Your task to perform on an android device: check android version Image 0: 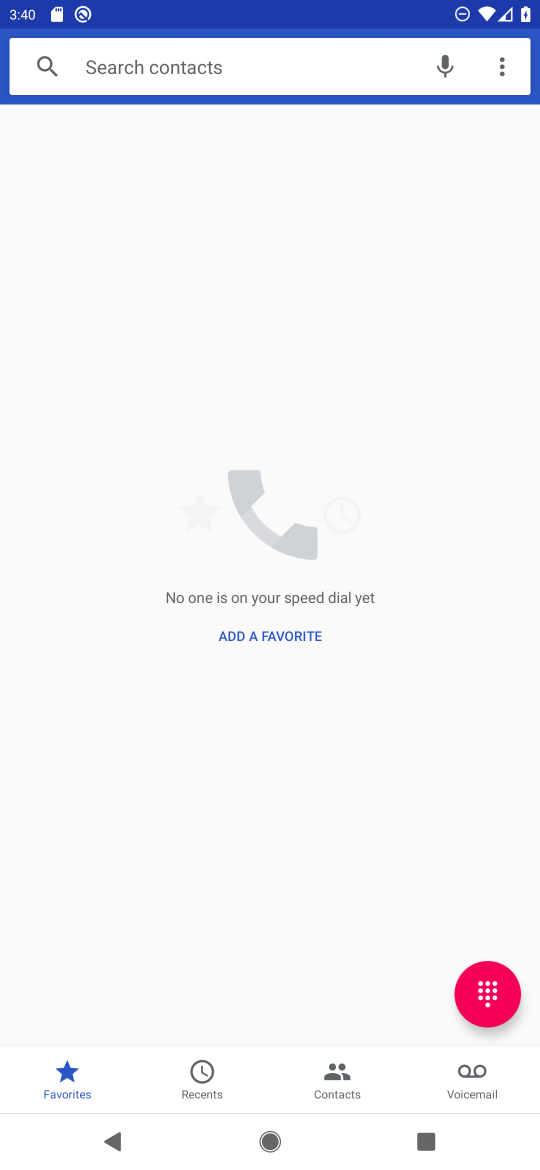
Step 0: press home button
Your task to perform on an android device: check android version Image 1: 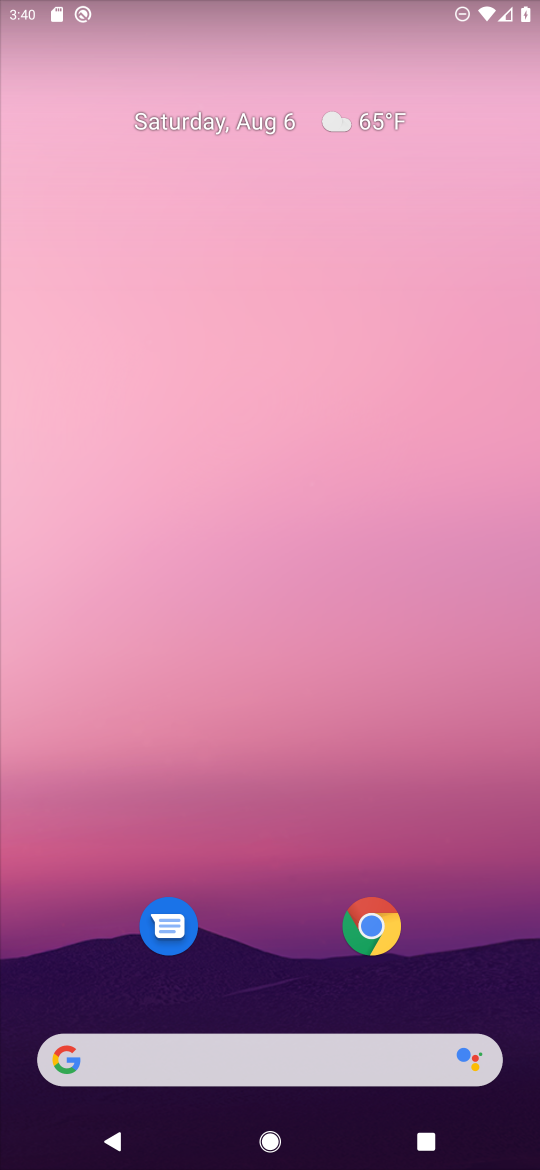
Step 1: drag from (267, 916) to (267, 271)
Your task to perform on an android device: check android version Image 2: 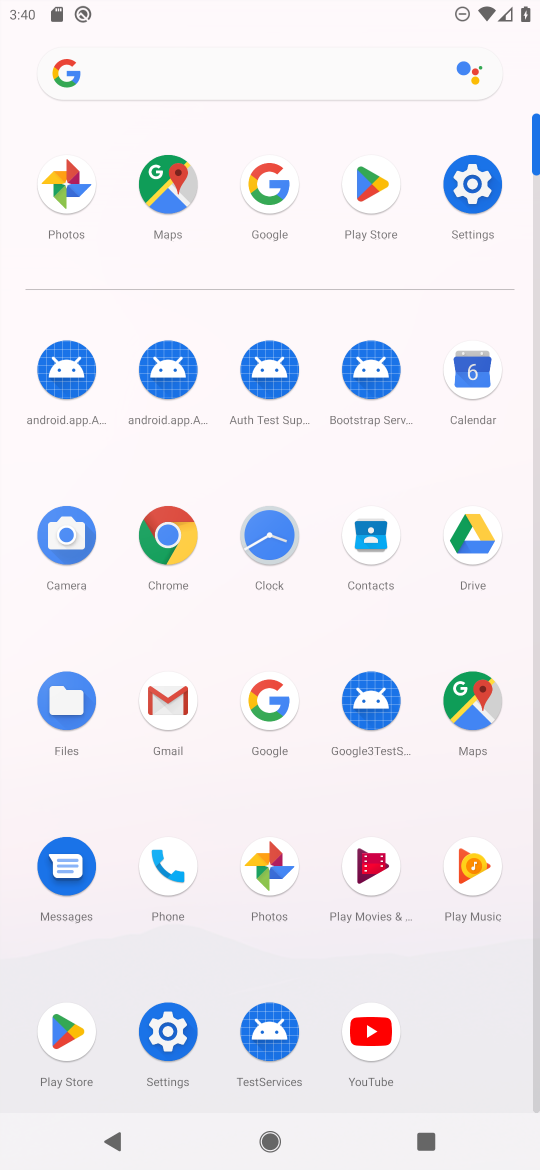
Step 2: click (467, 201)
Your task to perform on an android device: check android version Image 3: 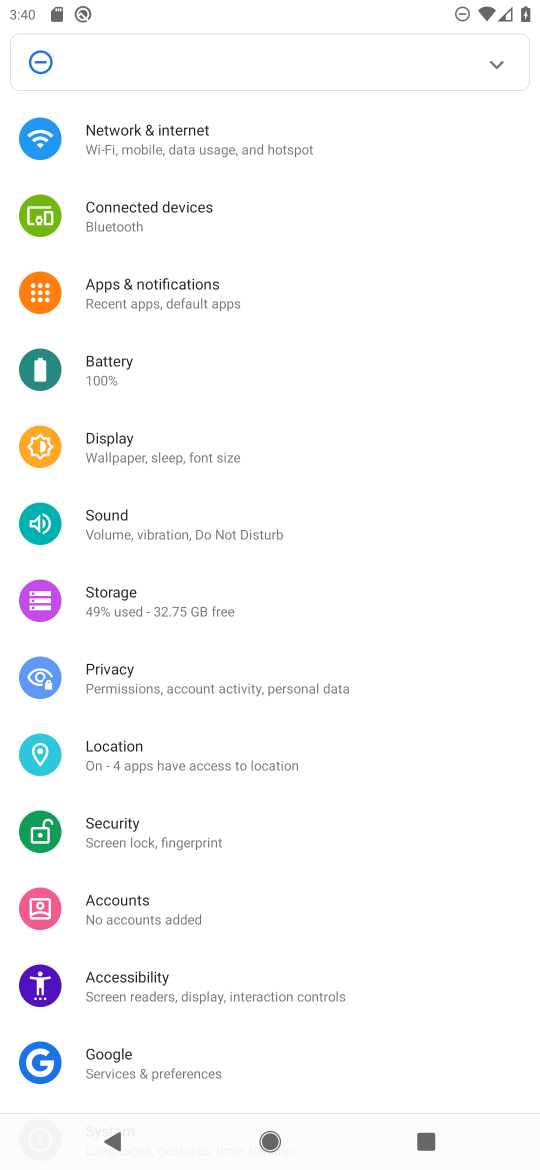
Step 3: drag from (262, 928) to (243, 305)
Your task to perform on an android device: check android version Image 4: 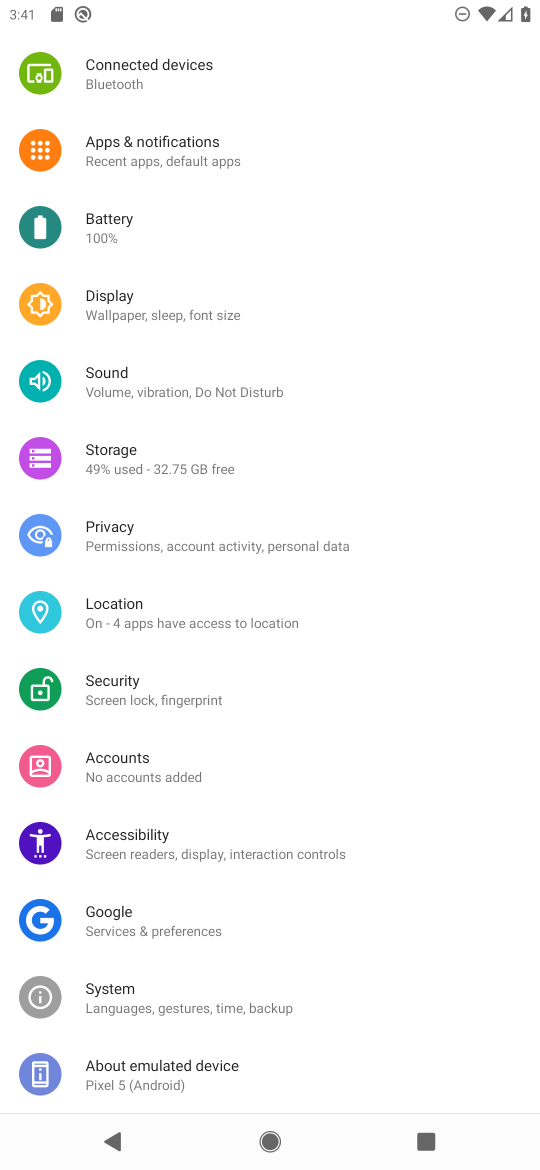
Step 4: drag from (221, 846) to (219, 242)
Your task to perform on an android device: check android version Image 5: 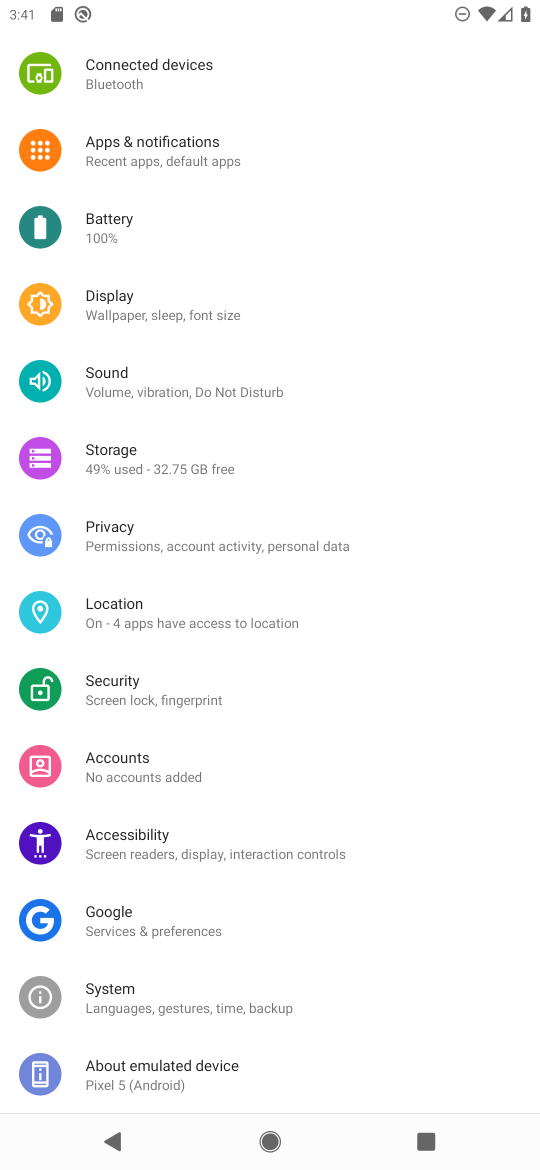
Step 5: click (174, 1062)
Your task to perform on an android device: check android version Image 6: 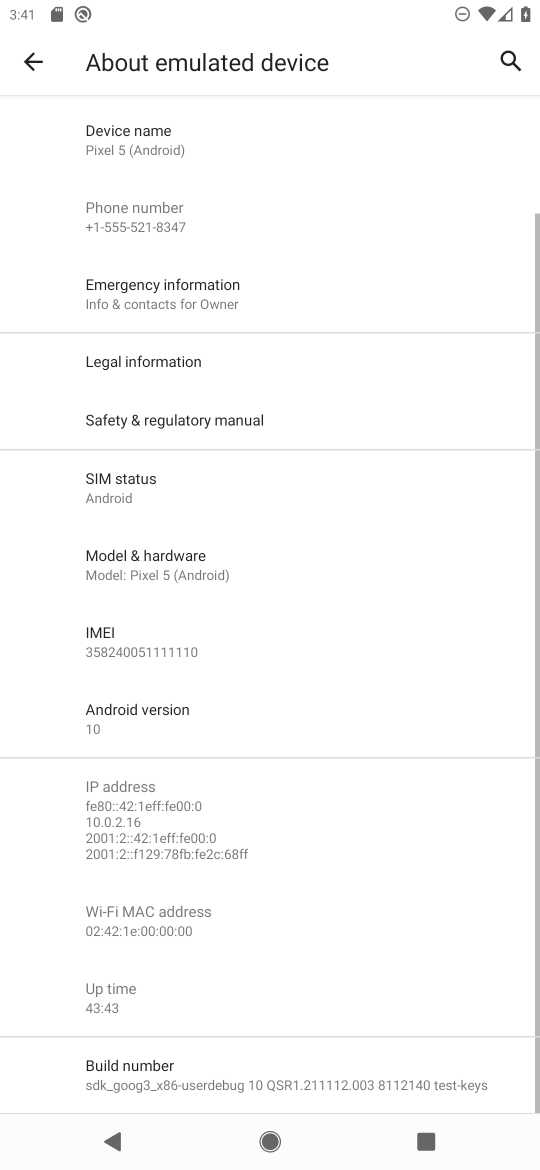
Step 6: click (186, 692)
Your task to perform on an android device: check android version Image 7: 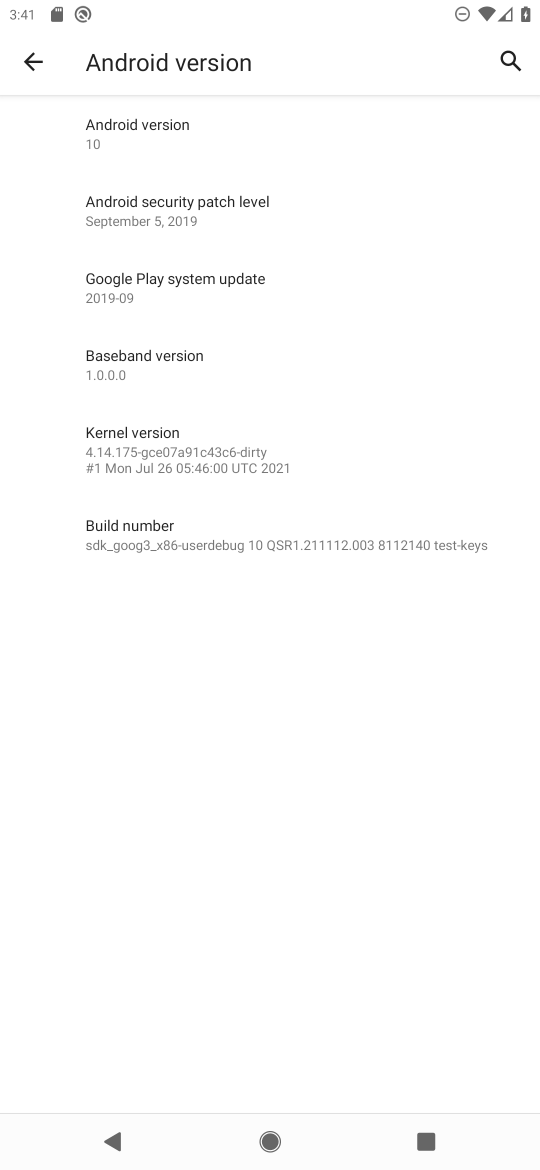
Step 7: task complete